Your task to perform on an android device: What's the weather going to be tomorrow? Image 0: 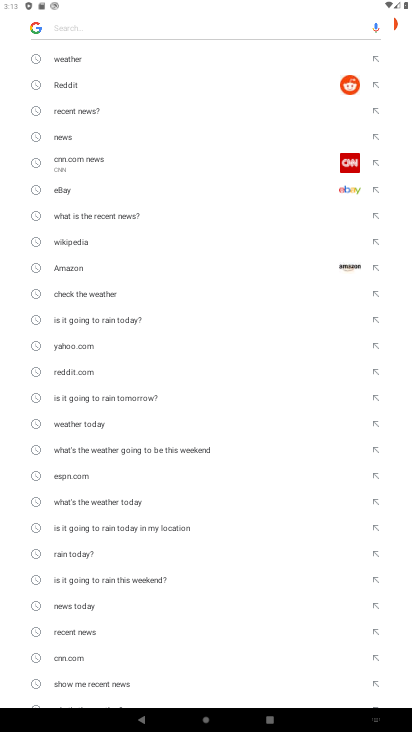
Step 0: press home button
Your task to perform on an android device: What's the weather going to be tomorrow? Image 1: 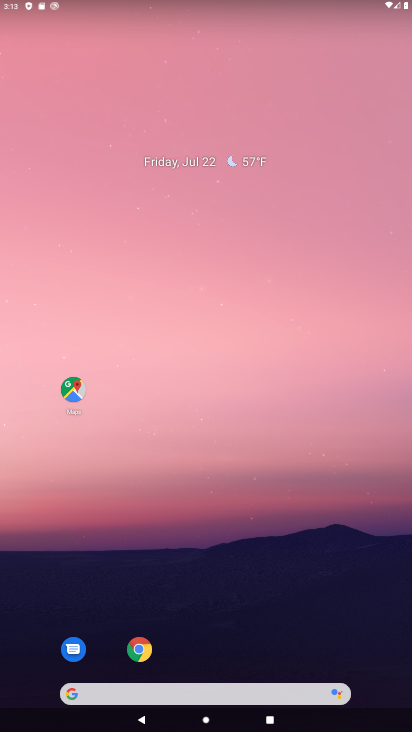
Step 1: click (136, 692)
Your task to perform on an android device: What's the weather going to be tomorrow? Image 2: 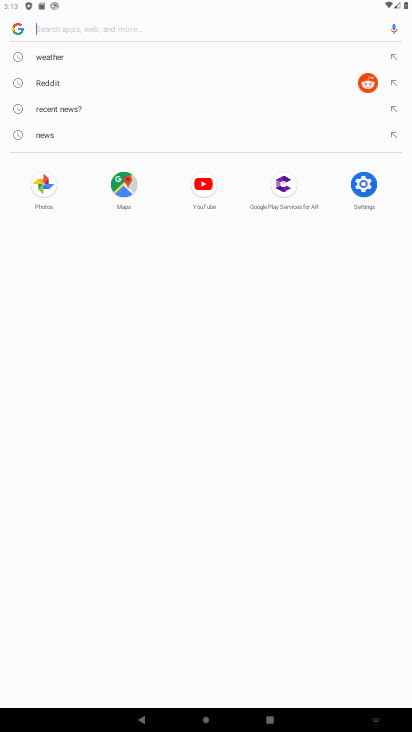
Step 2: click (62, 26)
Your task to perform on an android device: What's the weather going to be tomorrow? Image 3: 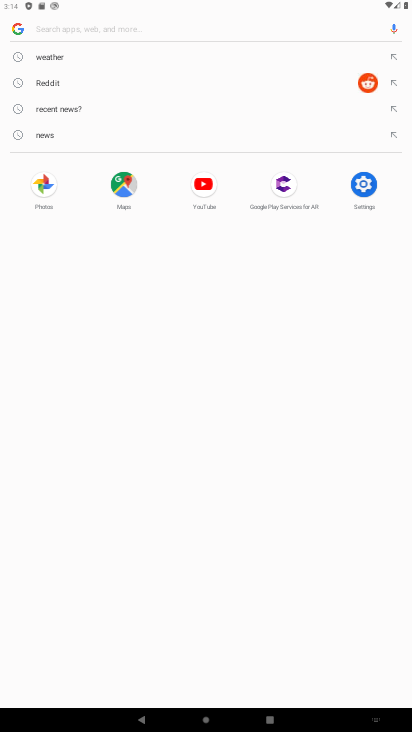
Step 3: type "What's the weather going to be tomorrow?"
Your task to perform on an android device: What's the weather going to be tomorrow? Image 4: 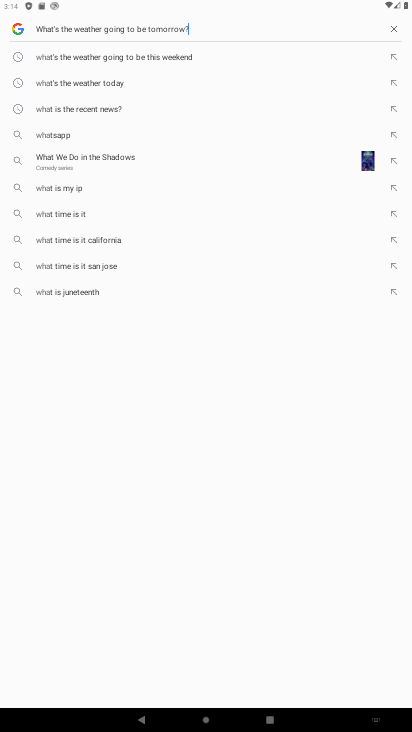
Step 4: type ""
Your task to perform on an android device: What's the weather going to be tomorrow? Image 5: 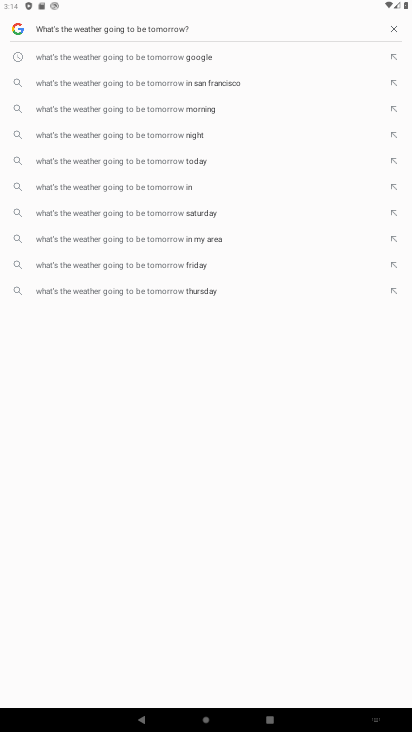
Step 5: type ""
Your task to perform on an android device: What's the weather going to be tomorrow? Image 6: 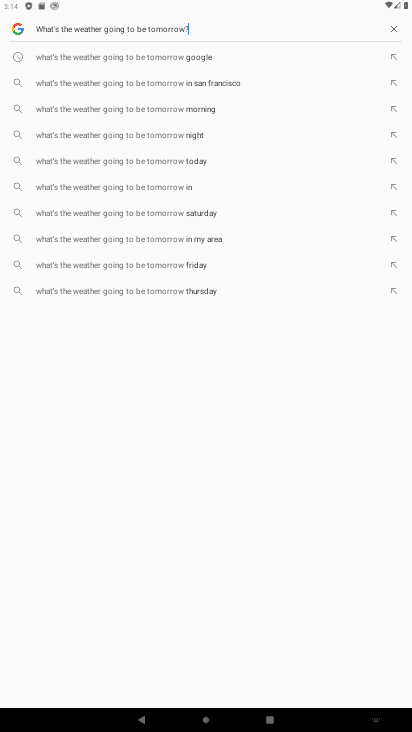
Step 6: type ""
Your task to perform on an android device: What's the weather going to be tomorrow? Image 7: 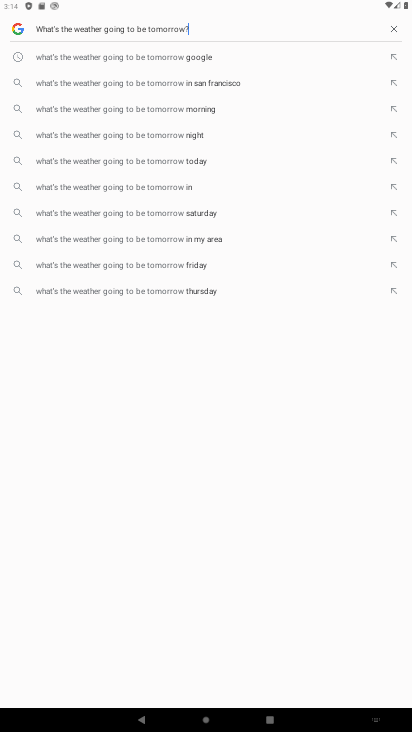
Step 7: task complete